Your task to perform on an android device: read, delete, or share a saved page in the chrome app Image 0: 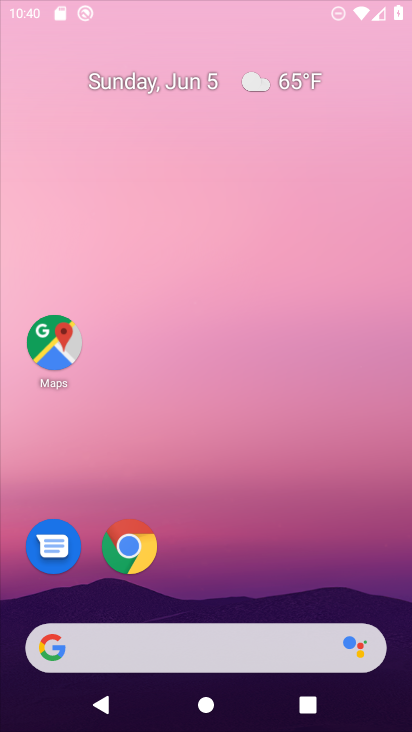
Step 0: click (362, 195)
Your task to perform on an android device: read, delete, or share a saved page in the chrome app Image 1: 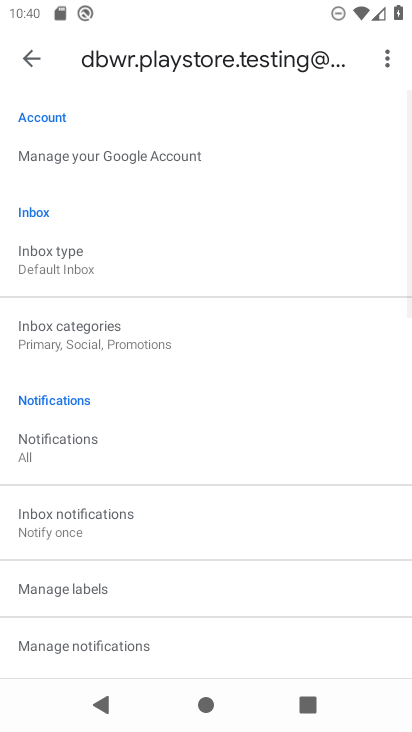
Step 1: press home button
Your task to perform on an android device: read, delete, or share a saved page in the chrome app Image 2: 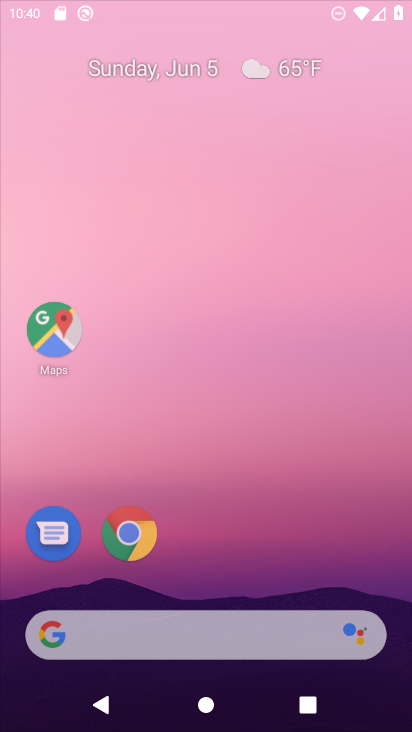
Step 2: drag from (292, 519) to (319, 156)
Your task to perform on an android device: read, delete, or share a saved page in the chrome app Image 3: 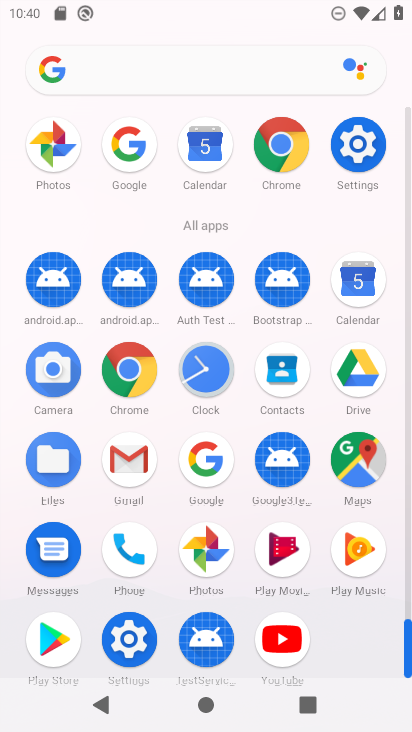
Step 3: click (118, 378)
Your task to perform on an android device: read, delete, or share a saved page in the chrome app Image 4: 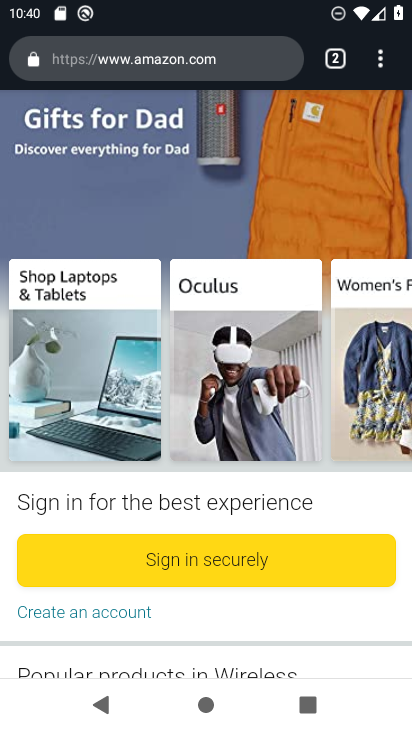
Step 4: click (392, 49)
Your task to perform on an android device: read, delete, or share a saved page in the chrome app Image 5: 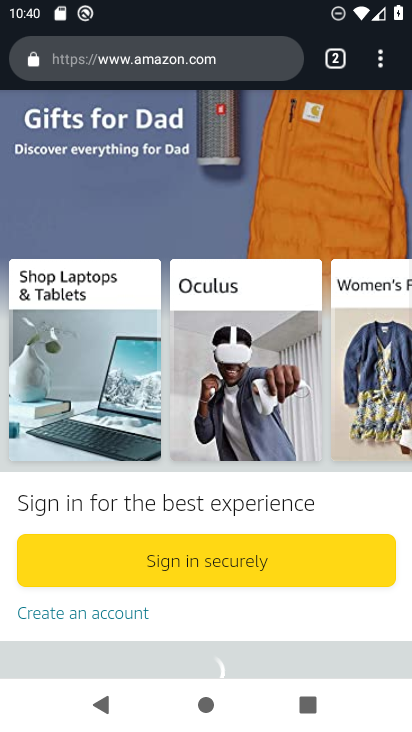
Step 5: task complete